Your task to perform on an android device: Open the map Image 0: 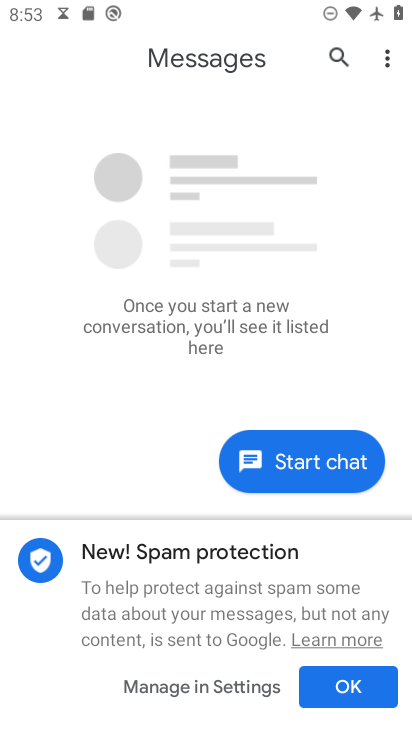
Step 0: press back button
Your task to perform on an android device: Open the map Image 1: 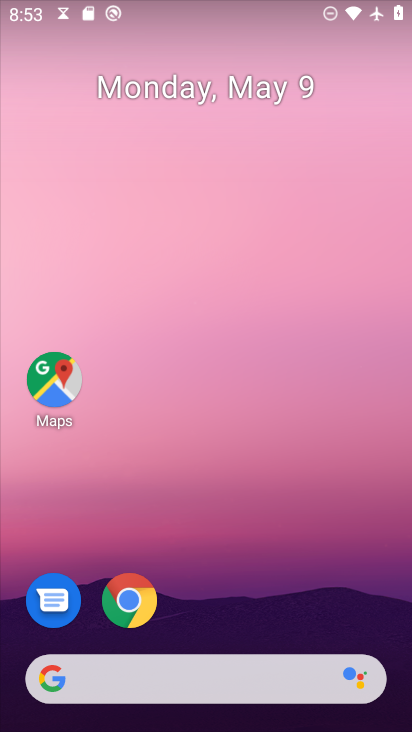
Step 1: click (52, 377)
Your task to perform on an android device: Open the map Image 2: 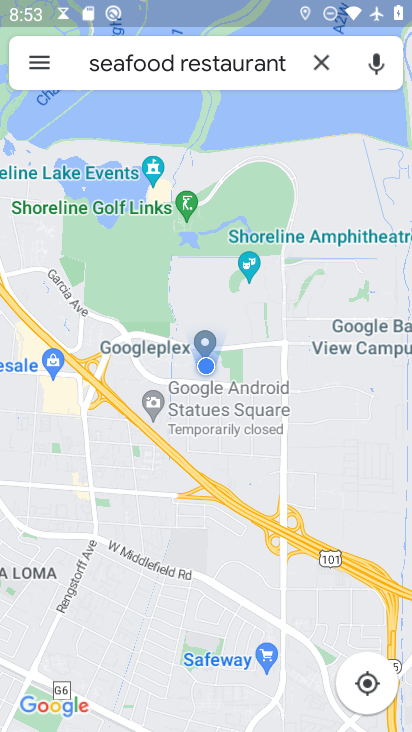
Step 2: click (324, 60)
Your task to perform on an android device: Open the map Image 3: 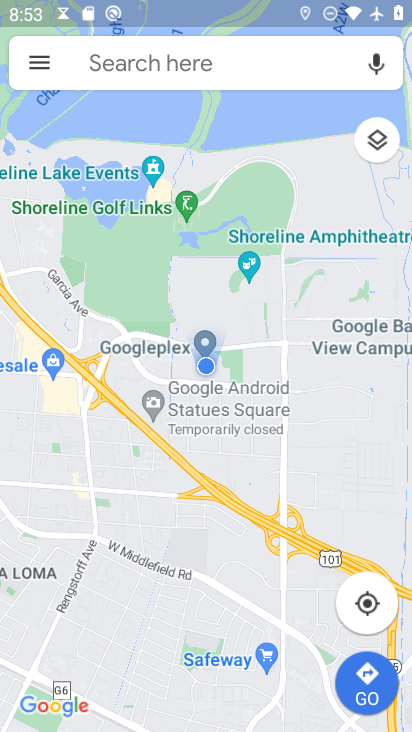
Step 3: task complete